Your task to perform on an android device: Open sound settings Image 0: 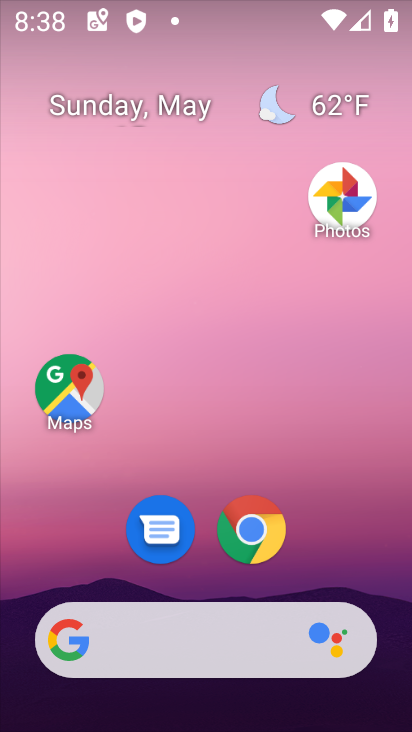
Step 0: drag from (369, 524) to (331, 174)
Your task to perform on an android device: Open sound settings Image 1: 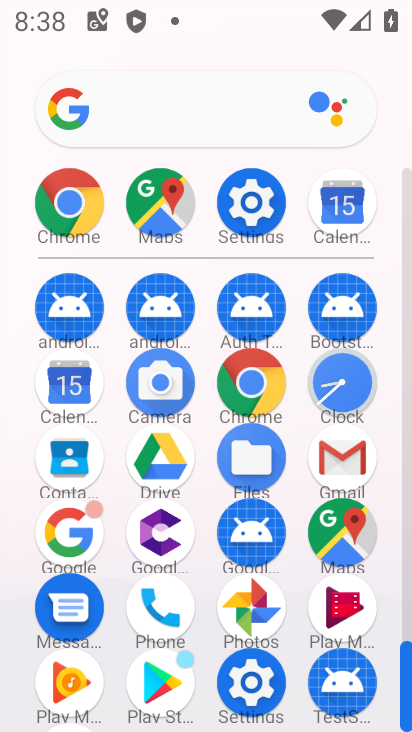
Step 1: click (260, 691)
Your task to perform on an android device: Open sound settings Image 2: 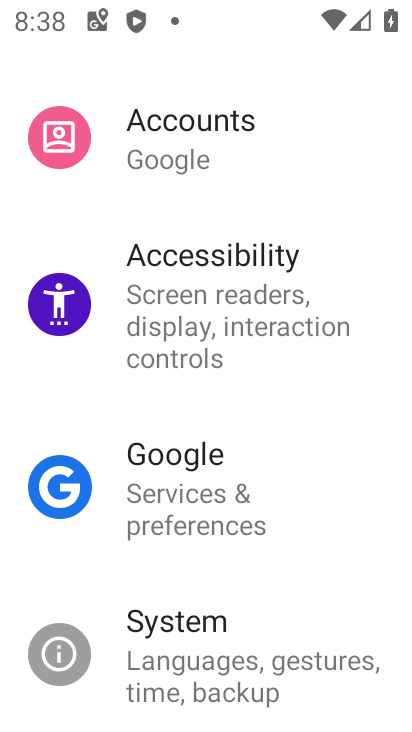
Step 2: drag from (289, 578) to (283, 207)
Your task to perform on an android device: Open sound settings Image 3: 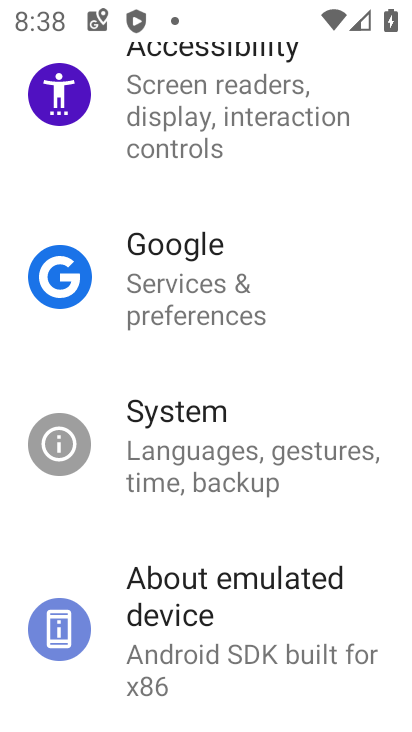
Step 3: drag from (264, 642) to (272, 312)
Your task to perform on an android device: Open sound settings Image 4: 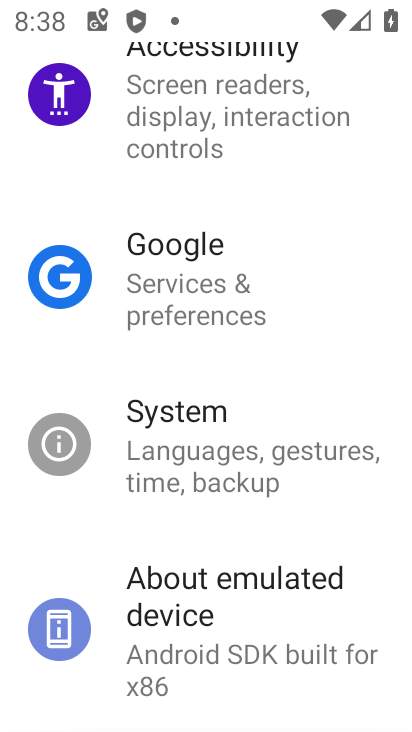
Step 4: drag from (281, 129) to (297, 585)
Your task to perform on an android device: Open sound settings Image 5: 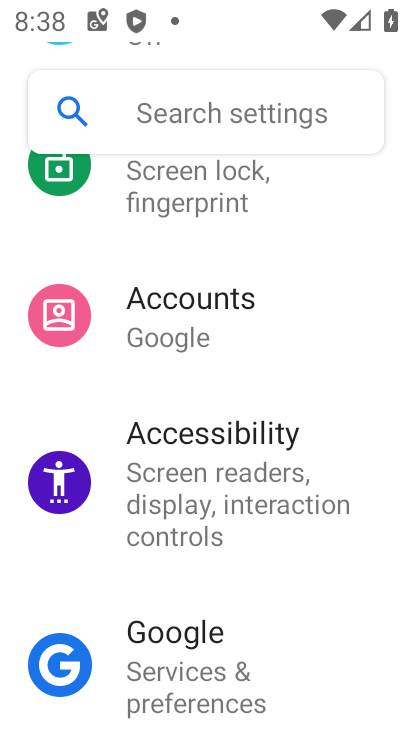
Step 5: drag from (270, 207) to (269, 635)
Your task to perform on an android device: Open sound settings Image 6: 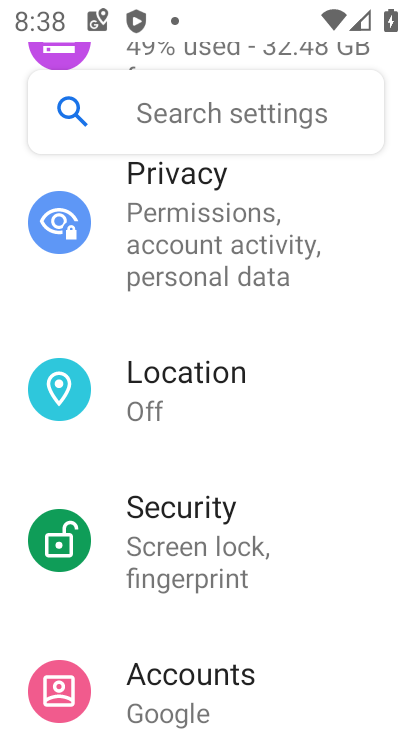
Step 6: drag from (257, 327) to (257, 602)
Your task to perform on an android device: Open sound settings Image 7: 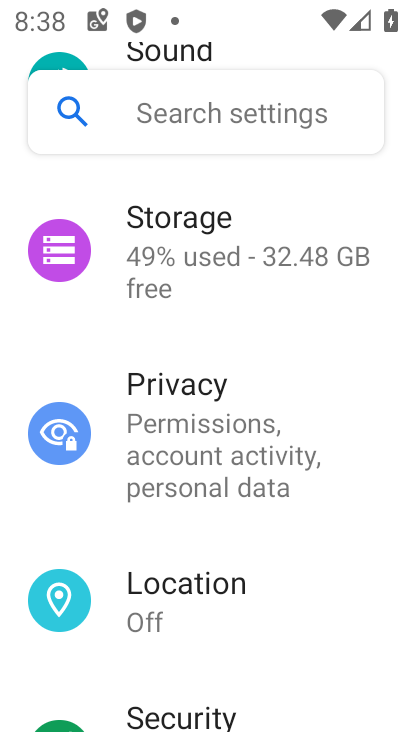
Step 7: drag from (251, 276) to (251, 647)
Your task to perform on an android device: Open sound settings Image 8: 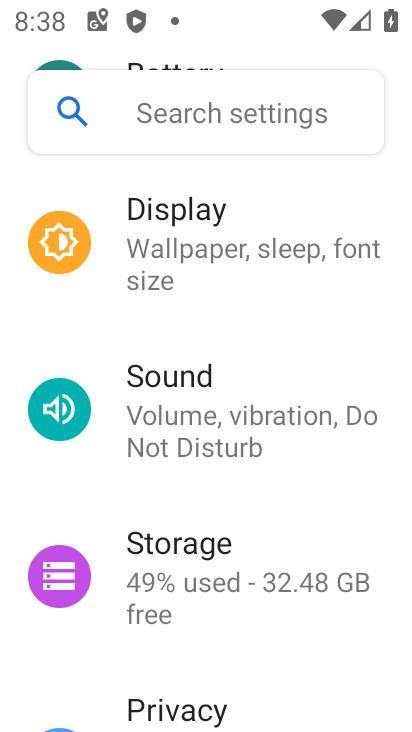
Step 8: click (219, 386)
Your task to perform on an android device: Open sound settings Image 9: 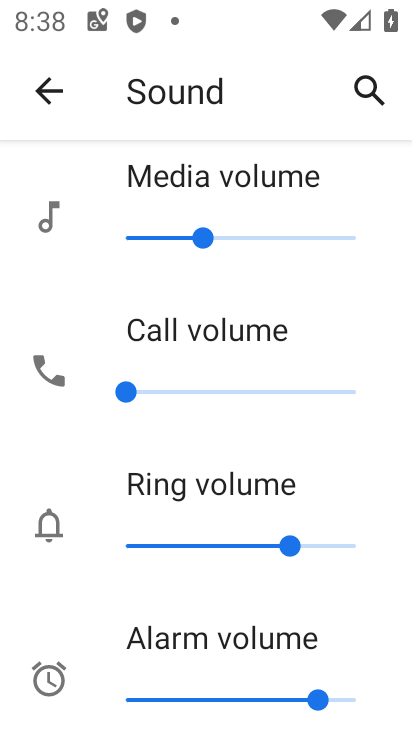
Step 9: task complete